Your task to perform on an android device: Open calendar and show me the third week of next month Image 0: 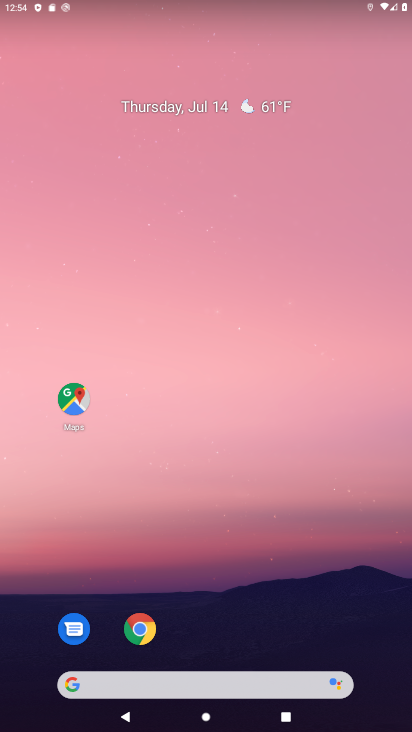
Step 0: drag from (205, 627) to (274, 125)
Your task to perform on an android device: Open calendar and show me the third week of next month Image 1: 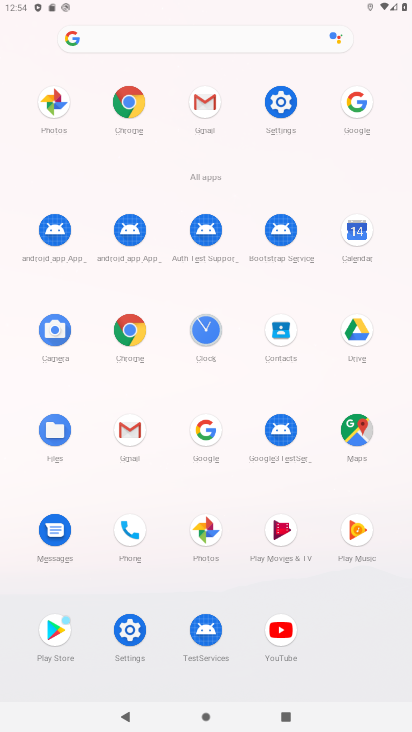
Step 1: click (358, 236)
Your task to perform on an android device: Open calendar and show me the third week of next month Image 2: 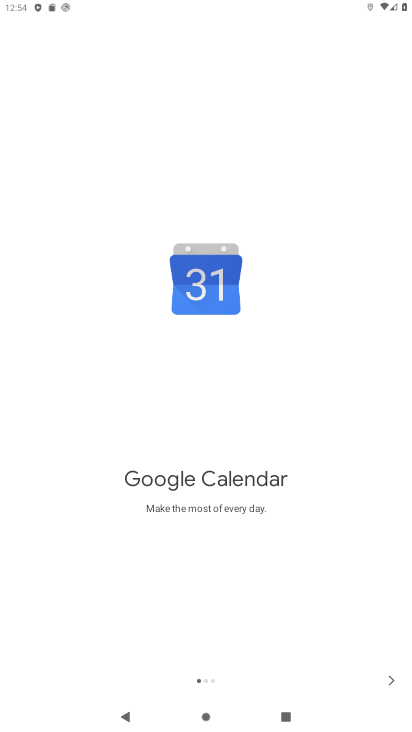
Step 2: click (389, 677)
Your task to perform on an android device: Open calendar and show me the third week of next month Image 3: 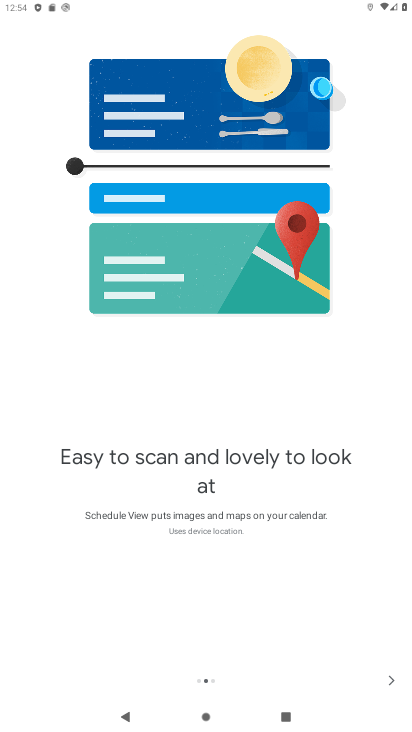
Step 3: click (390, 671)
Your task to perform on an android device: Open calendar and show me the third week of next month Image 4: 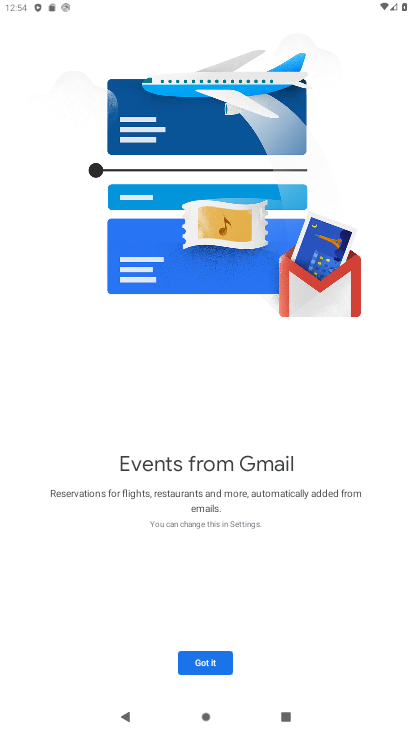
Step 4: click (223, 666)
Your task to perform on an android device: Open calendar and show me the third week of next month Image 5: 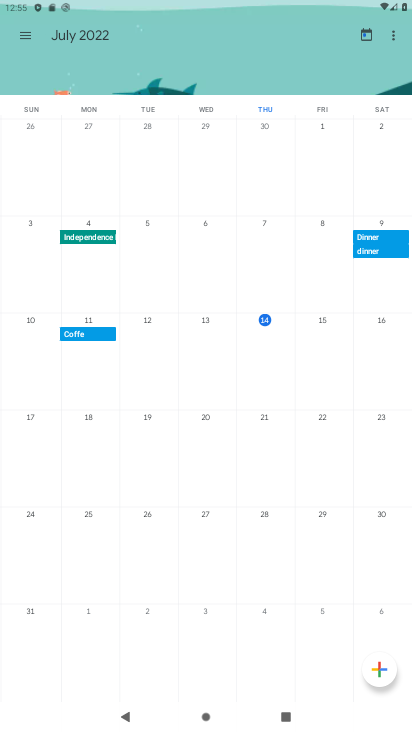
Step 5: drag from (355, 516) to (5, 488)
Your task to perform on an android device: Open calendar and show me the third week of next month Image 6: 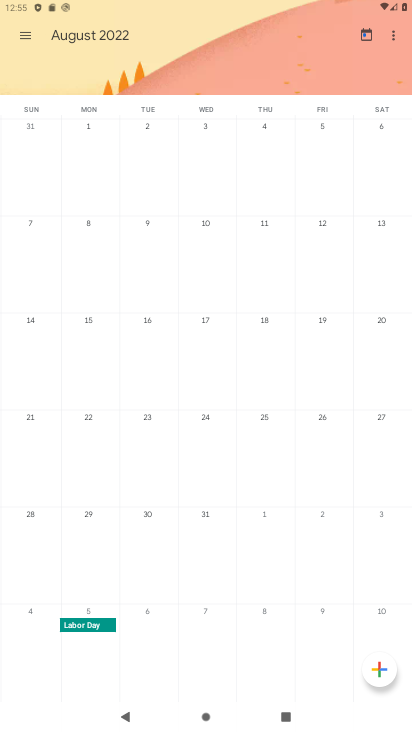
Step 6: click (273, 339)
Your task to perform on an android device: Open calendar and show me the third week of next month Image 7: 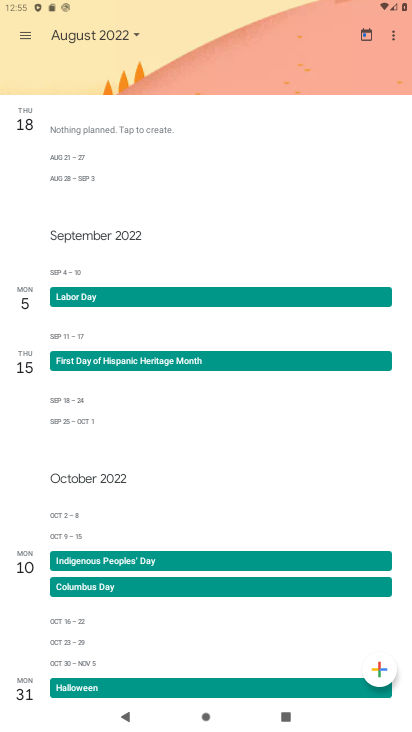
Step 7: task complete